Your task to perform on an android device: open app "Facebook Messenger" (install if not already installed), go to login, and select forgot password Image 0: 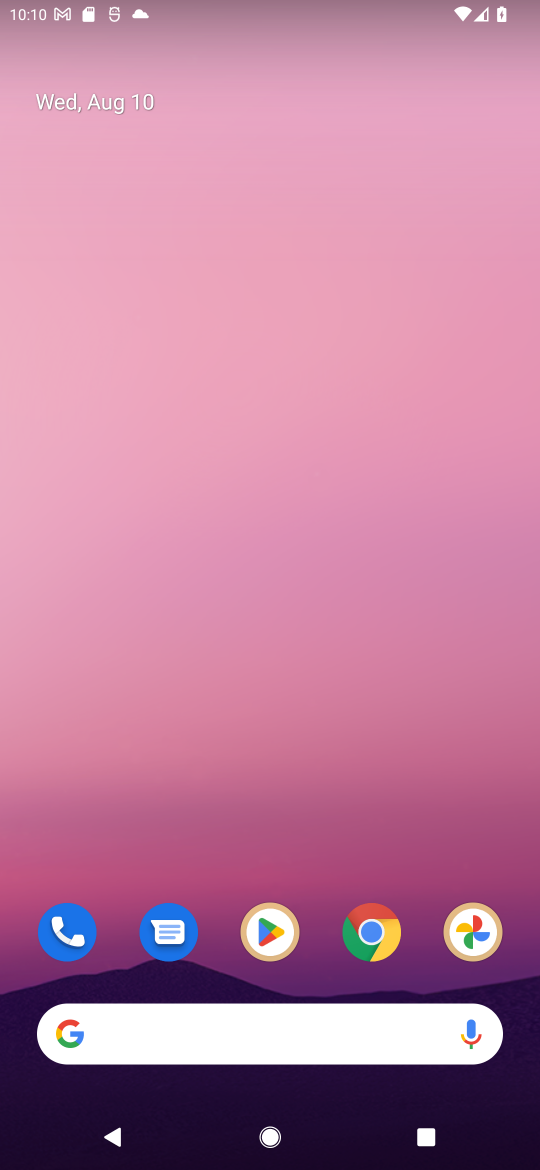
Step 0: click (276, 936)
Your task to perform on an android device: open app "Facebook Messenger" (install if not already installed), go to login, and select forgot password Image 1: 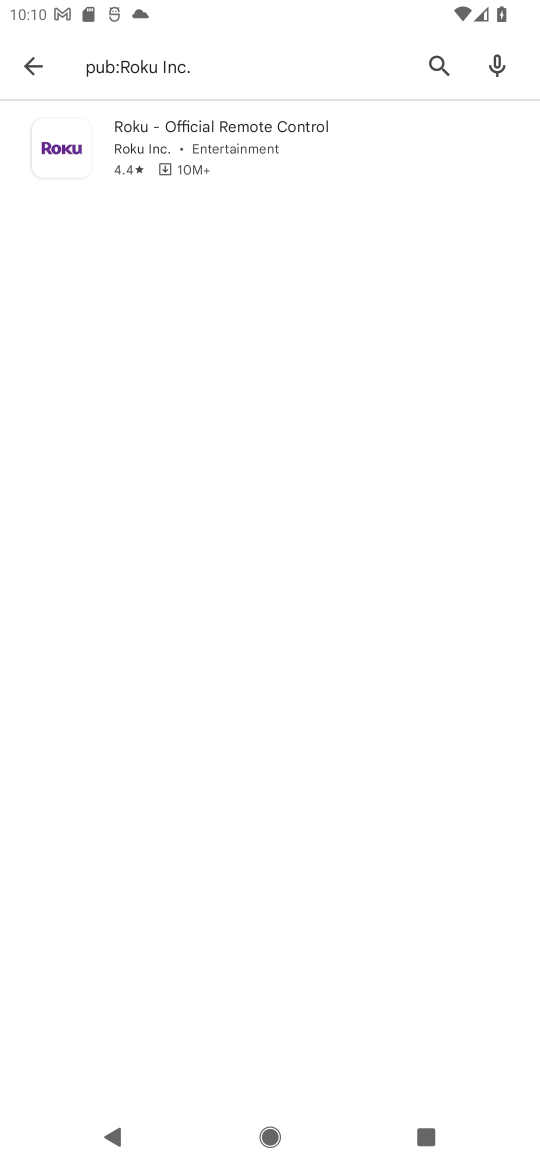
Step 1: click (434, 68)
Your task to perform on an android device: open app "Facebook Messenger" (install if not already installed), go to login, and select forgot password Image 2: 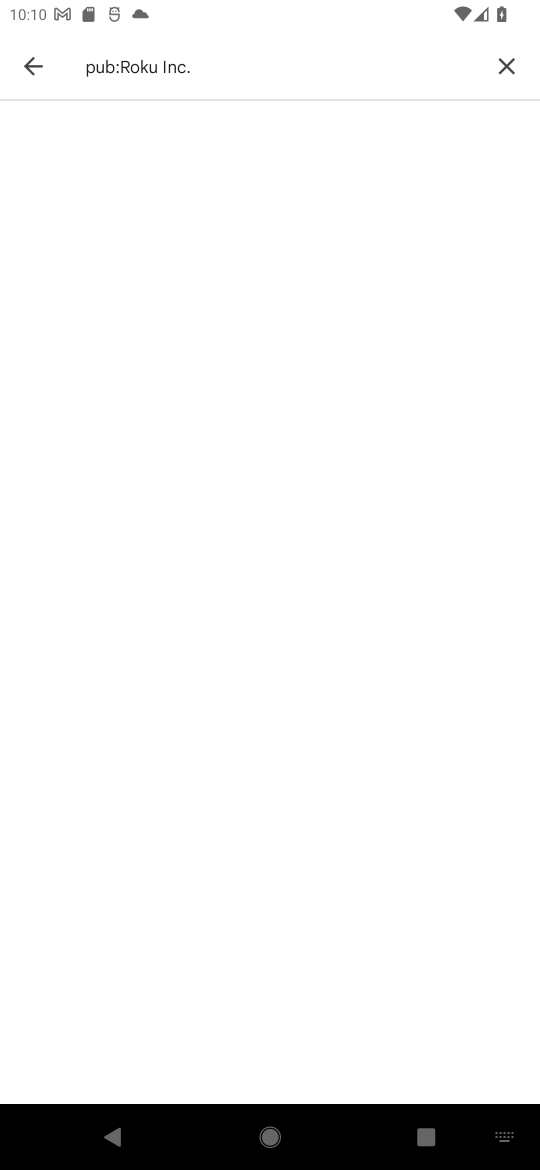
Step 2: click (501, 62)
Your task to perform on an android device: open app "Facebook Messenger" (install if not already installed), go to login, and select forgot password Image 3: 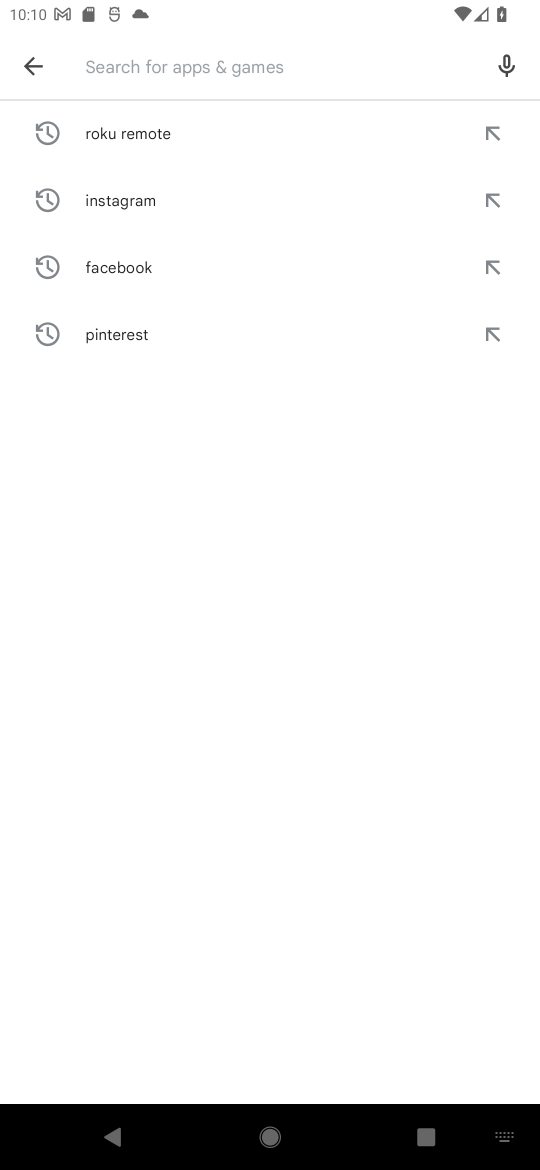
Step 3: type "facebook messenger"
Your task to perform on an android device: open app "Facebook Messenger" (install if not already installed), go to login, and select forgot password Image 4: 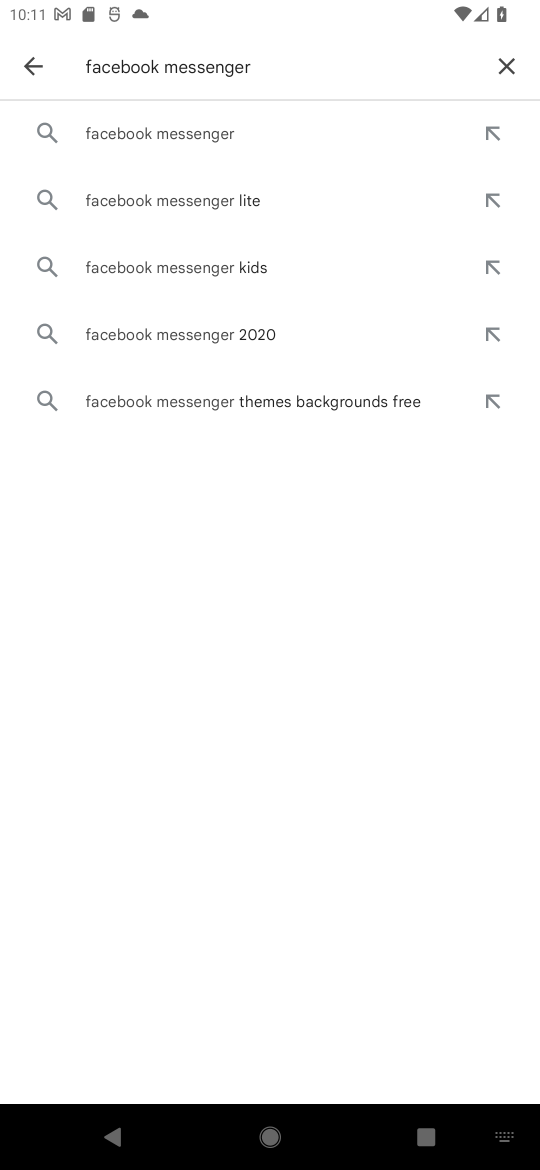
Step 4: click (249, 123)
Your task to perform on an android device: open app "Facebook Messenger" (install if not already installed), go to login, and select forgot password Image 5: 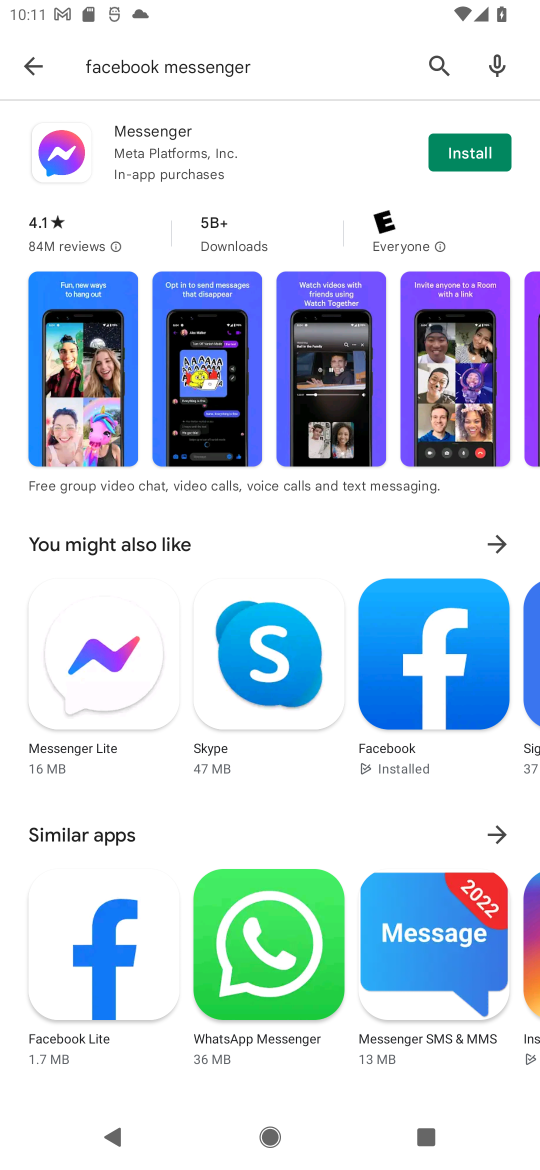
Step 5: click (459, 159)
Your task to perform on an android device: open app "Facebook Messenger" (install if not already installed), go to login, and select forgot password Image 6: 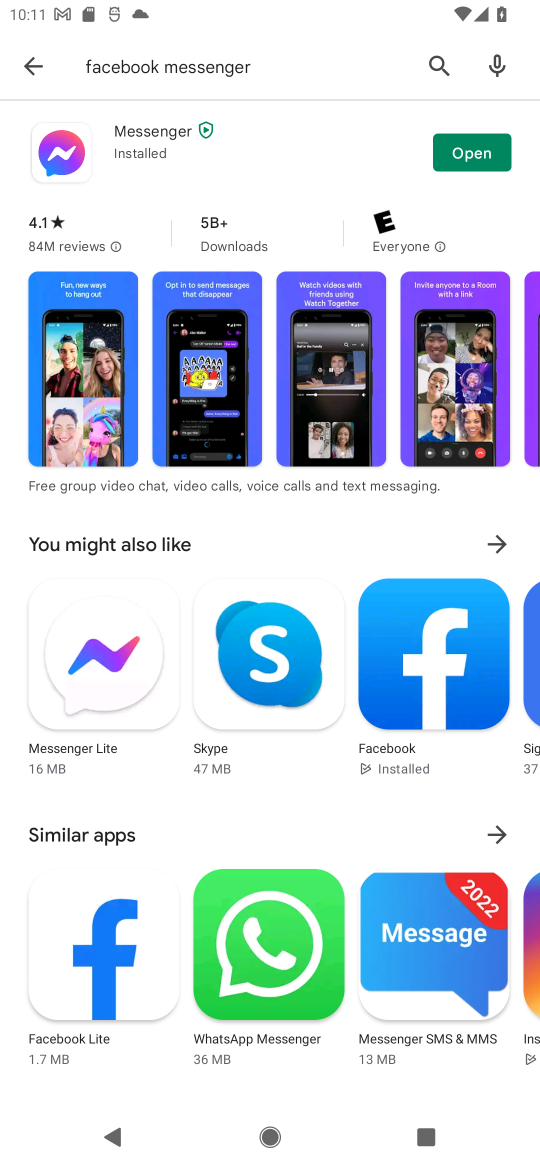
Step 6: click (479, 149)
Your task to perform on an android device: open app "Facebook Messenger" (install if not already installed), go to login, and select forgot password Image 7: 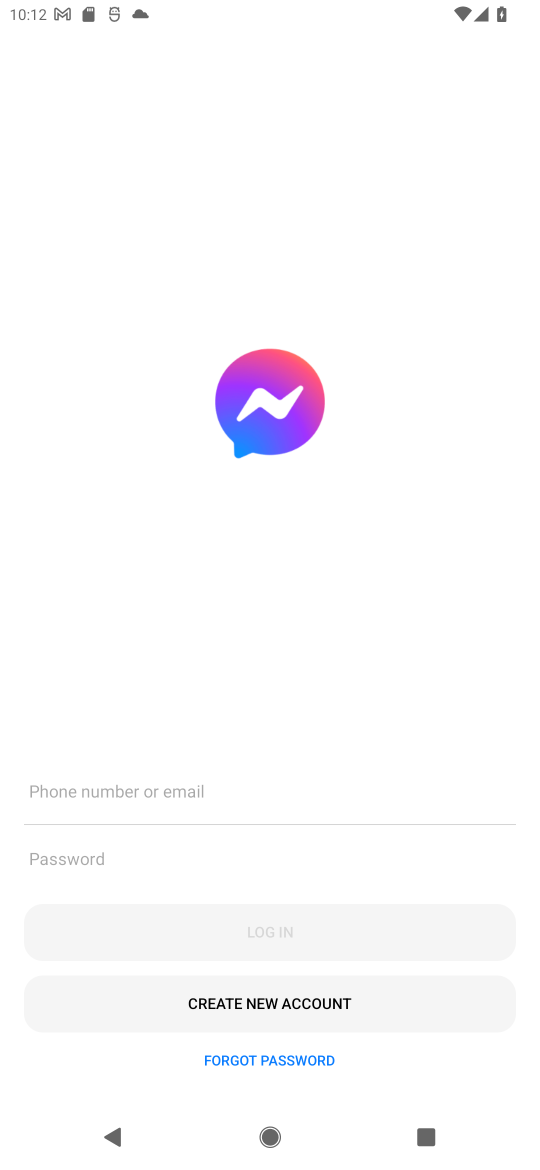
Step 7: click (263, 1057)
Your task to perform on an android device: open app "Facebook Messenger" (install if not already installed), go to login, and select forgot password Image 8: 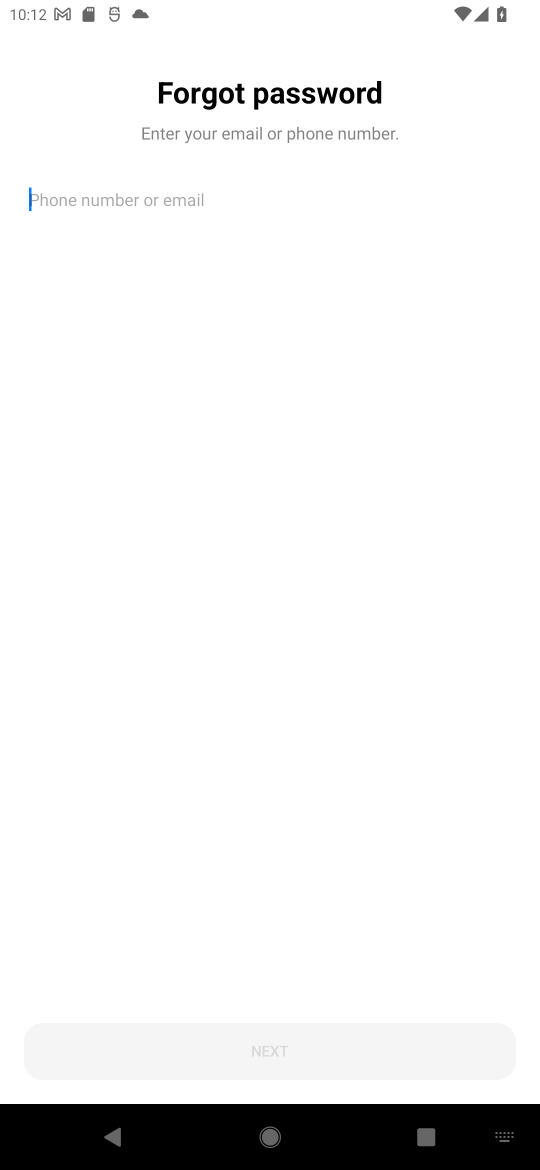
Step 8: task complete